Your task to perform on an android device: Open notification settings Image 0: 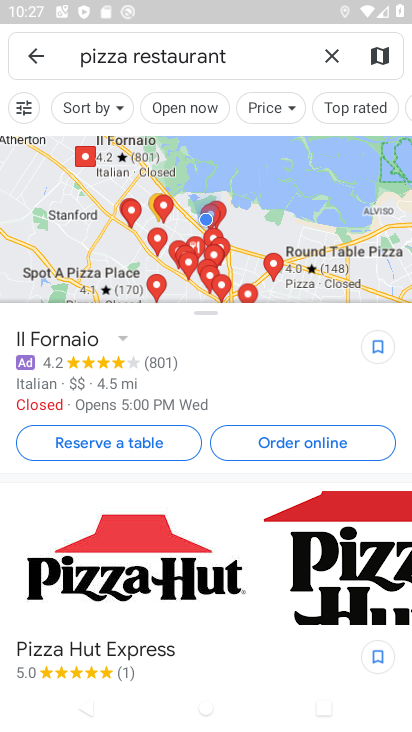
Step 0: press home button
Your task to perform on an android device: Open notification settings Image 1: 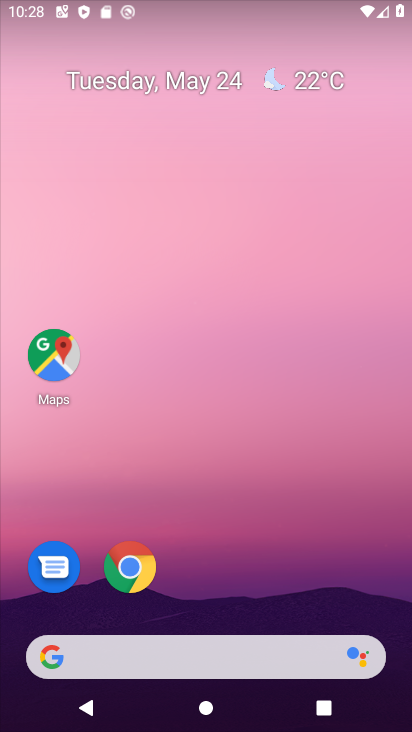
Step 1: drag from (210, 623) to (331, 1)
Your task to perform on an android device: Open notification settings Image 2: 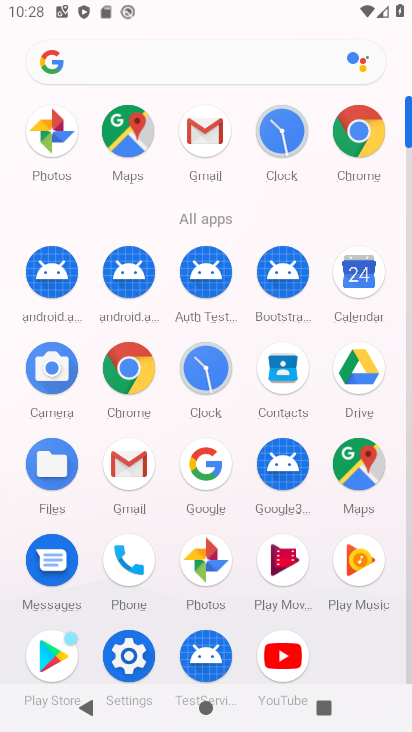
Step 2: click (127, 662)
Your task to perform on an android device: Open notification settings Image 3: 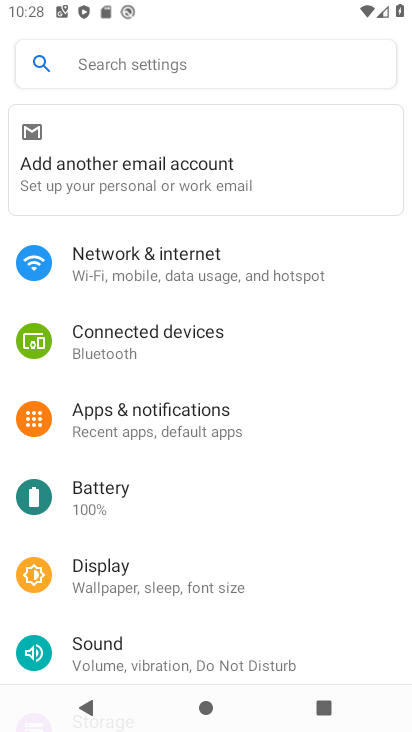
Step 3: click (112, 413)
Your task to perform on an android device: Open notification settings Image 4: 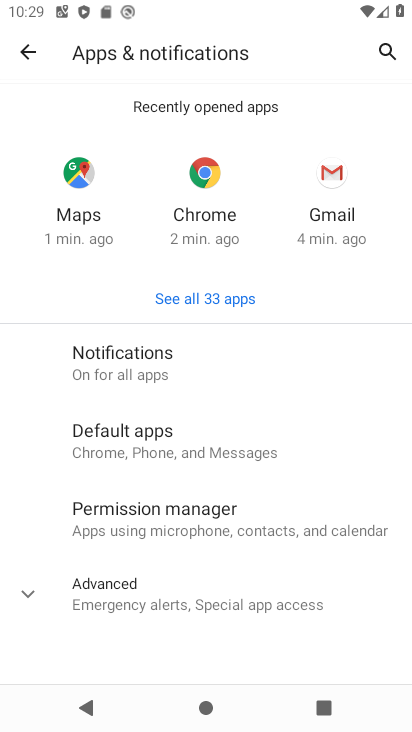
Step 4: click (129, 371)
Your task to perform on an android device: Open notification settings Image 5: 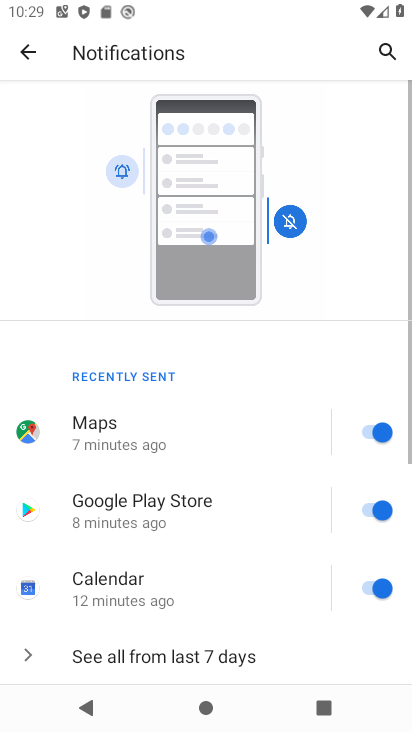
Step 5: task complete